Your task to perform on an android device: Open the Play Movies app and select the watchlist tab. Image 0: 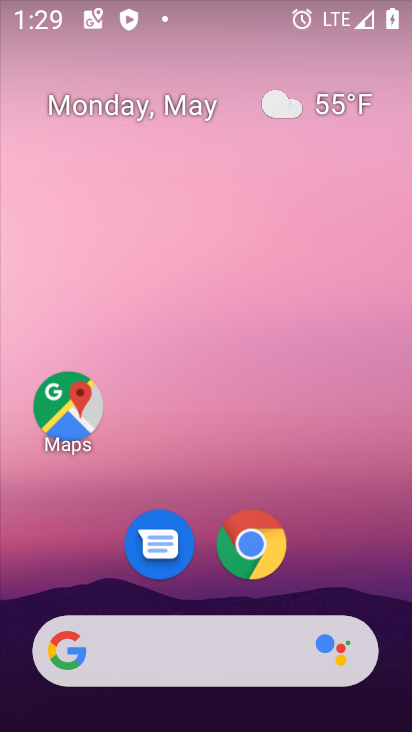
Step 0: drag from (394, 641) to (363, 43)
Your task to perform on an android device: Open the Play Movies app and select the watchlist tab. Image 1: 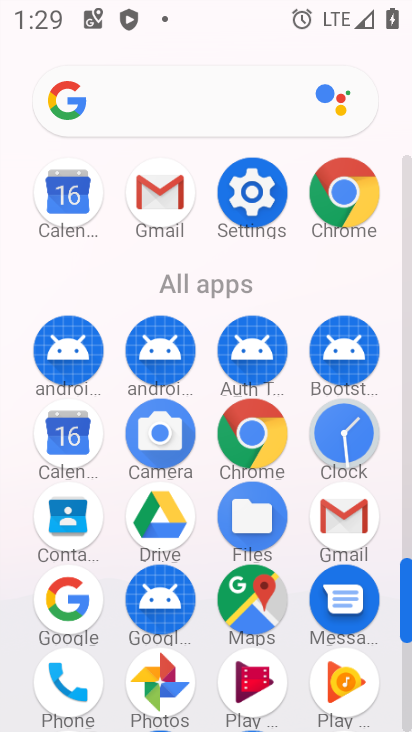
Step 1: click (410, 693)
Your task to perform on an android device: Open the Play Movies app and select the watchlist tab. Image 2: 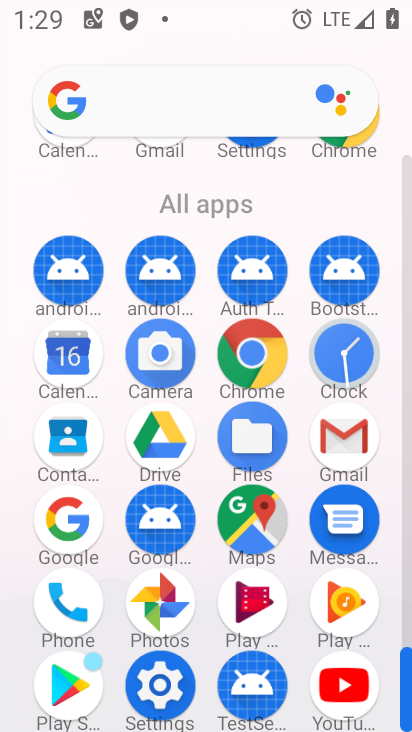
Step 2: click (254, 601)
Your task to perform on an android device: Open the Play Movies app and select the watchlist tab. Image 3: 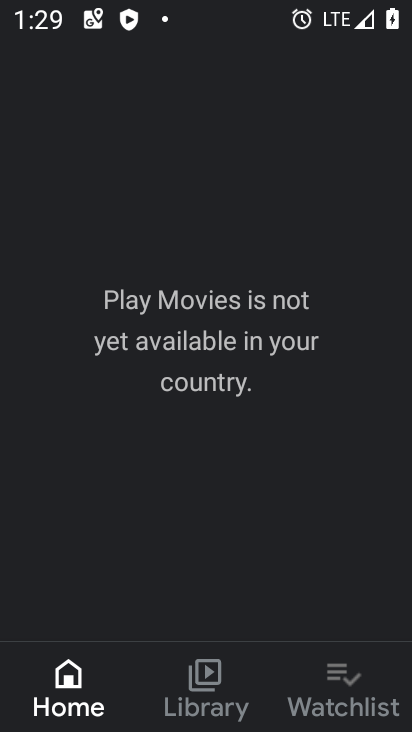
Step 3: click (340, 703)
Your task to perform on an android device: Open the Play Movies app and select the watchlist tab. Image 4: 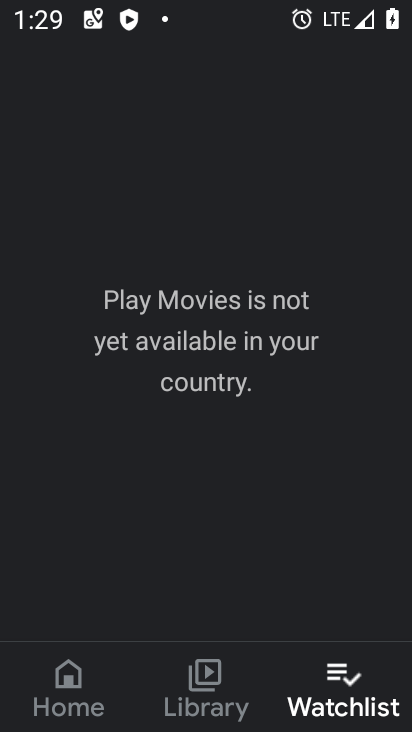
Step 4: task complete